Your task to perform on an android device: turn off notifications settings in the gmail app Image 0: 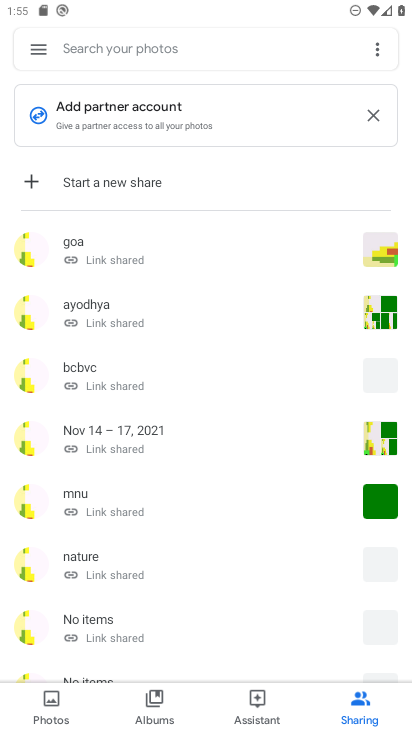
Step 0: press home button
Your task to perform on an android device: turn off notifications settings in the gmail app Image 1: 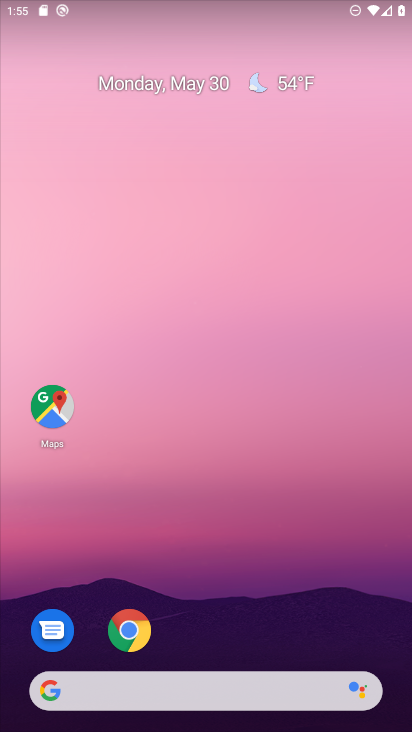
Step 1: drag from (256, 684) to (291, 114)
Your task to perform on an android device: turn off notifications settings in the gmail app Image 2: 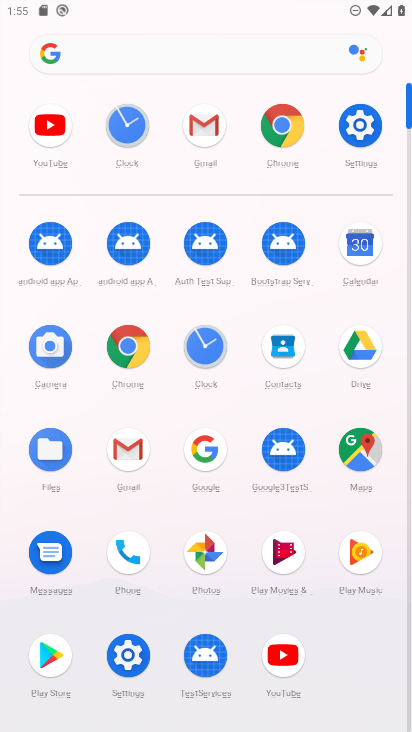
Step 2: click (199, 130)
Your task to perform on an android device: turn off notifications settings in the gmail app Image 3: 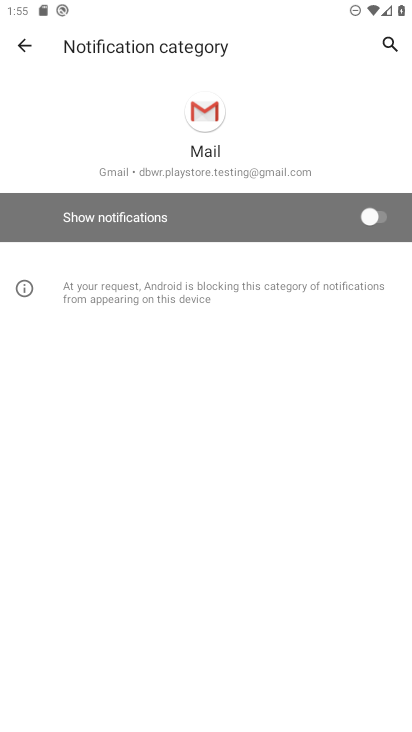
Step 3: click (21, 43)
Your task to perform on an android device: turn off notifications settings in the gmail app Image 4: 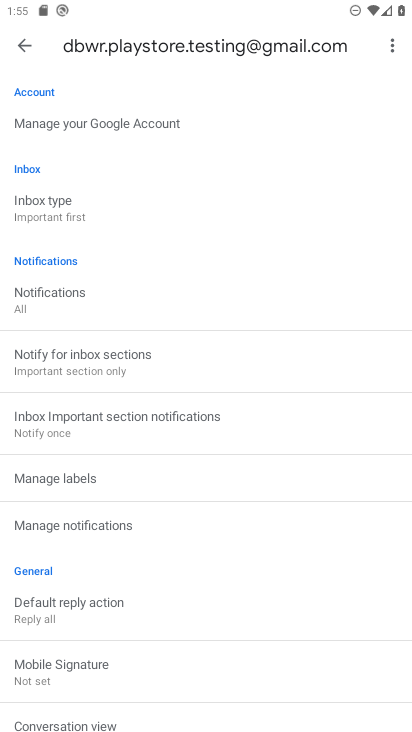
Step 4: task complete